Your task to perform on an android device: turn on sleep mode Image 0: 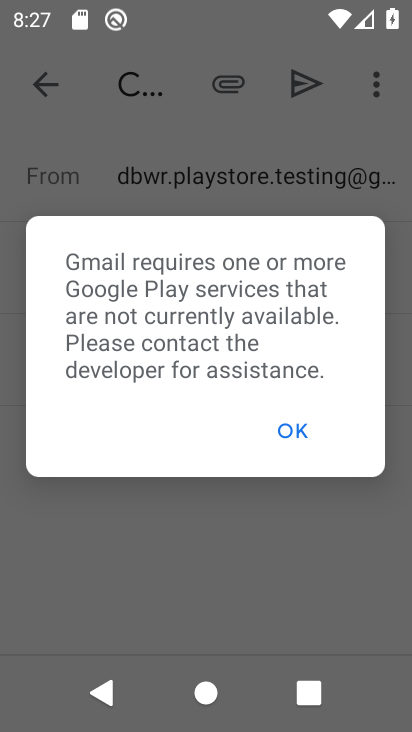
Step 0: press home button
Your task to perform on an android device: turn on sleep mode Image 1: 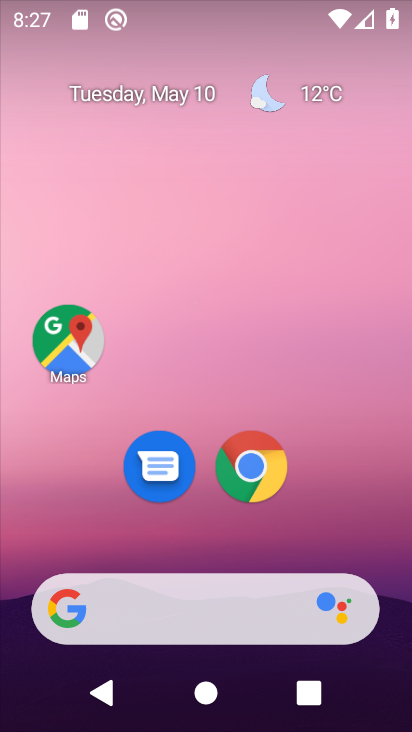
Step 1: drag from (266, 537) to (331, 29)
Your task to perform on an android device: turn on sleep mode Image 2: 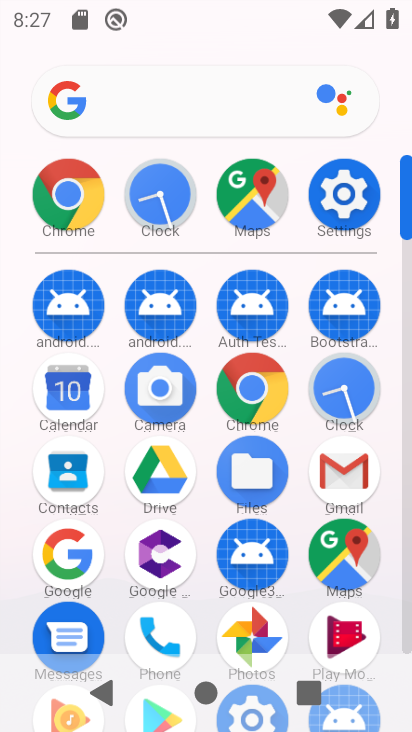
Step 2: click (345, 211)
Your task to perform on an android device: turn on sleep mode Image 3: 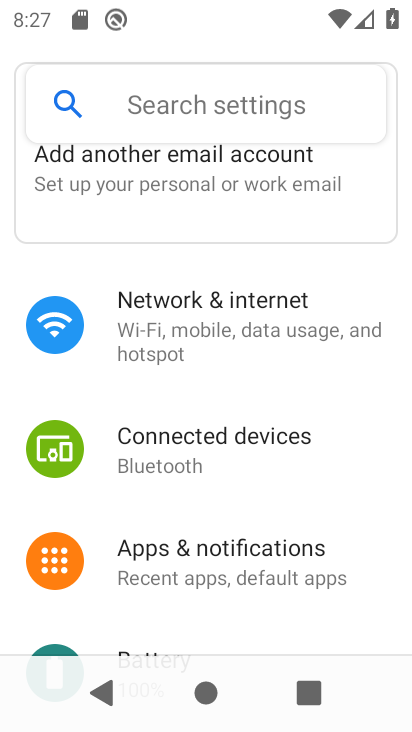
Step 3: click (200, 113)
Your task to perform on an android device: turn on sleep mode Image 4: 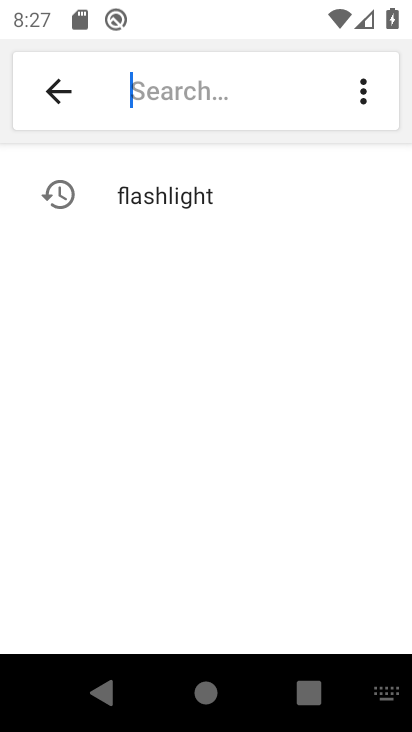
Step 4: type "sleep mode"
Your task to perform on an android device: turn on sleep mode Image 5: 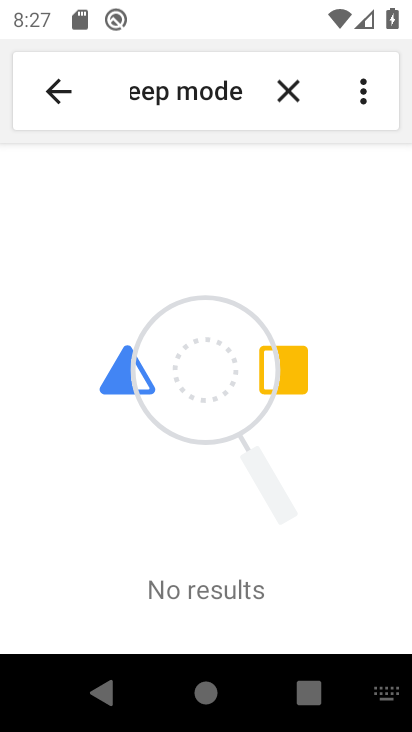
Step 5: task complete